Your task to perform on an android device: set the timer Image 0: 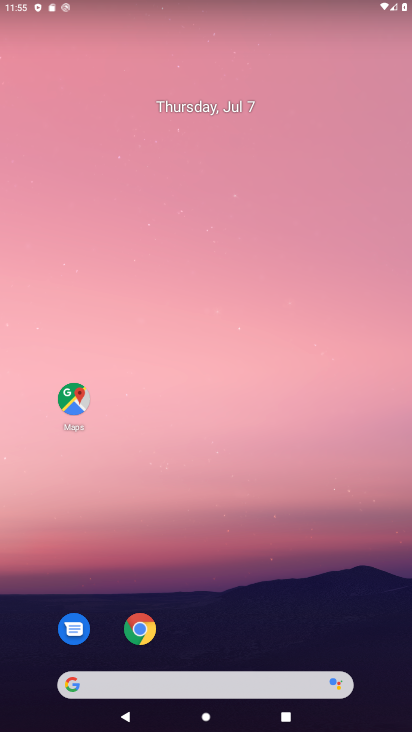
Step 0: drag from (277, 536) to (303, 120)
Your task to perform on an android device: set the timer Image 1: 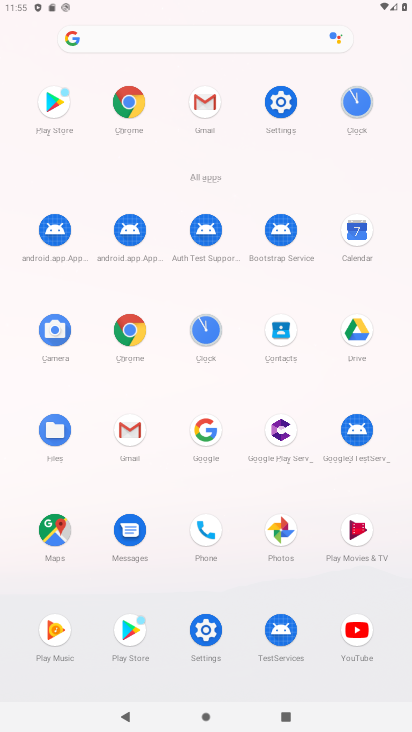
Step 1: click (364, 122)
Your task to perform on an android device: set the timer Image 2: 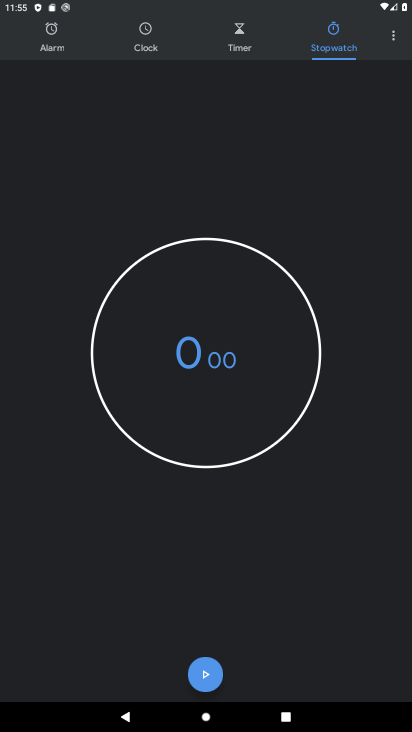
Step 2: click (254, 40)
Your task to perform on an android device: set the timer Image 3: 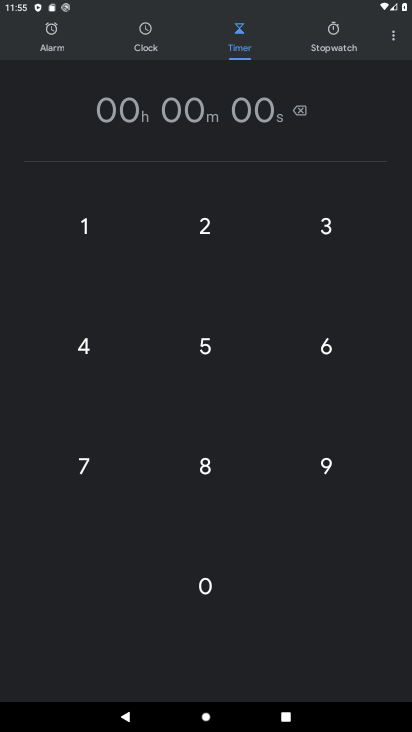
Step 3: click (200, 302)
Your task to perform on an android device: set the timer Image 4: 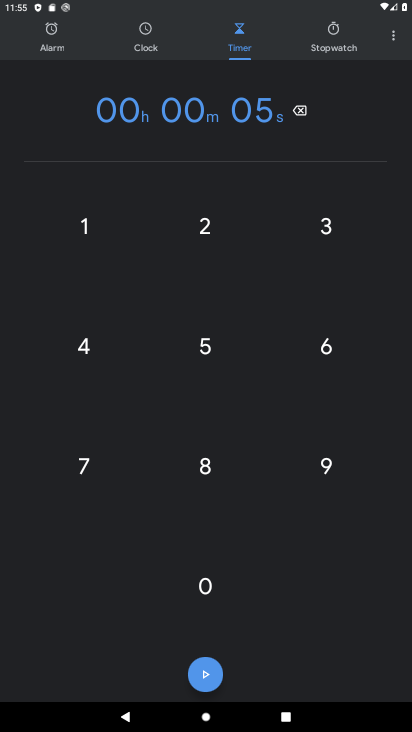
Step 4: click (213, 243)
Your task to perform on an android device: set the timer Image 5: 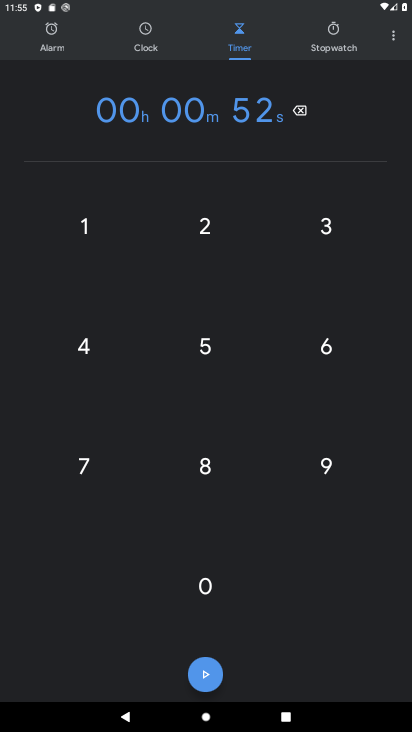
Step 5: task complete